Your task to perform on an android device: Open Chrome and go to settings Image 0: 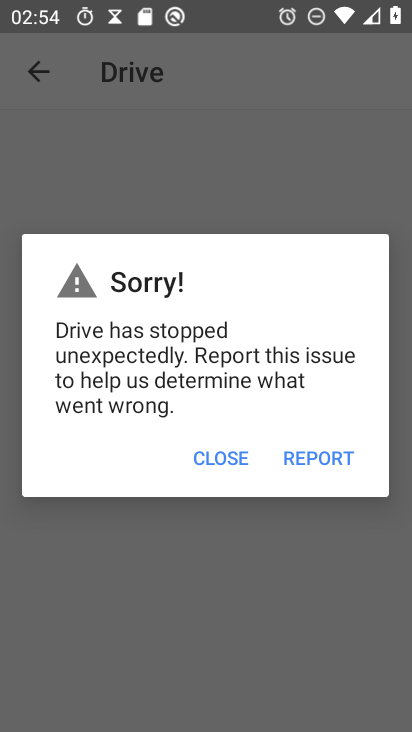
Step 0: press home button
Your task to perform on an android device: Open Chrome and go to settings Image 1: 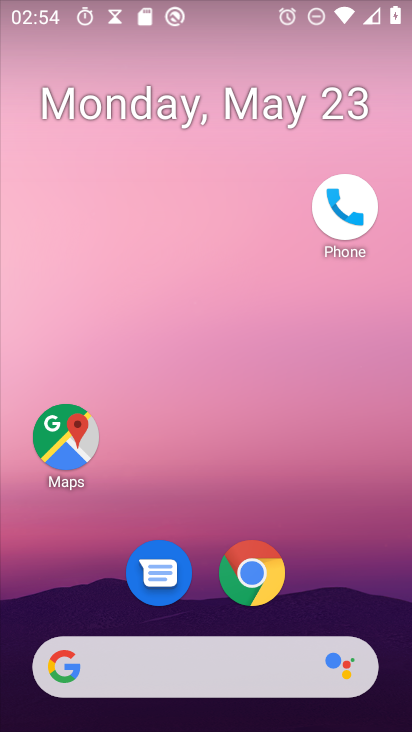
Step 1: click (237, 588)
Your task to perform on an android device: Open Chrome and go to settings Image 2: 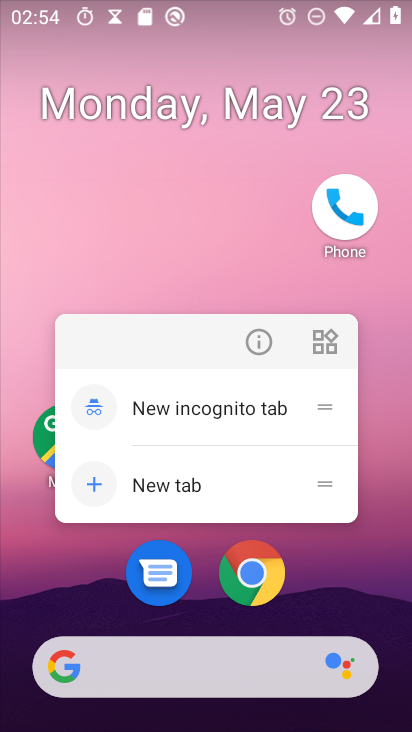
Step 2: click (247, 590)
Your task to perform on an android device: Open Chrome and go to settings Image 3: 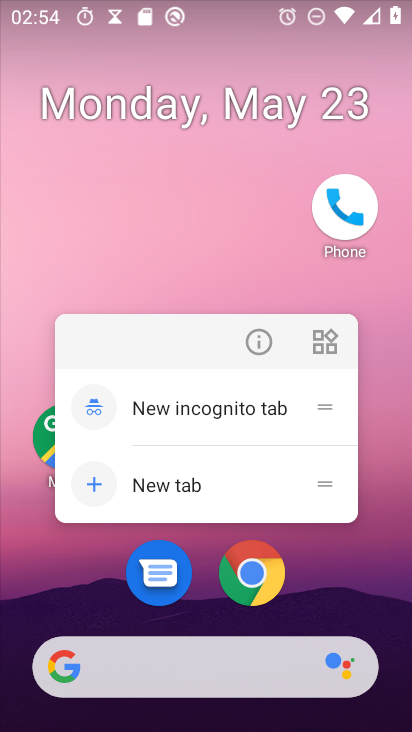
Step 3: click (260, 589)
Your task to perform on an android device: Open Chrome and go to settings Image 4: 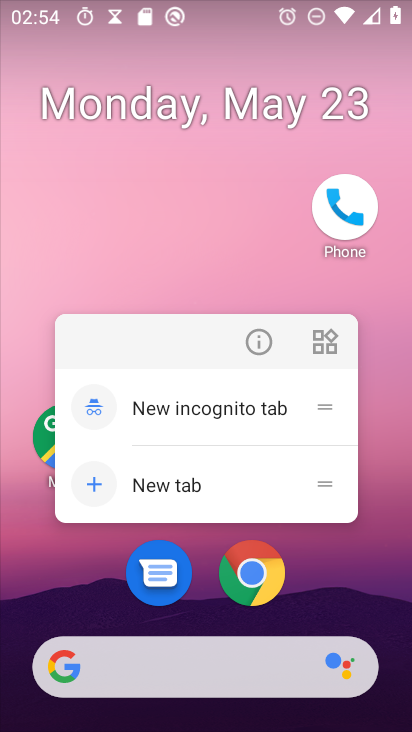
Step 4: click (255, 575)
Your task to perform on an android device: Open Chrome and go to settings Image 5: 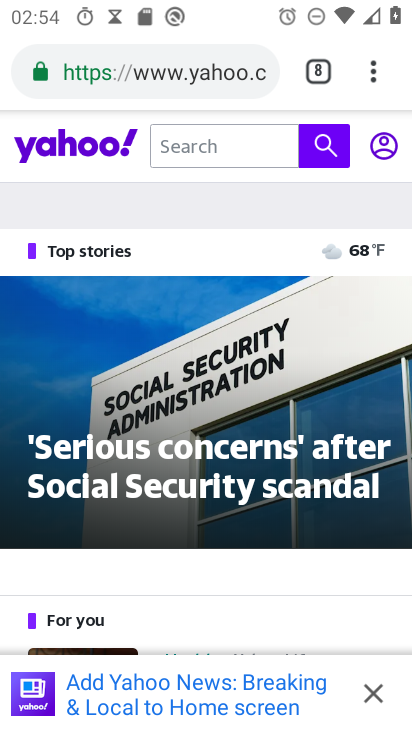
Step 5: drag from (376, 79) to (313, 577)
Your task to perform on an android device: Open Chrome and go to settings Image 6: 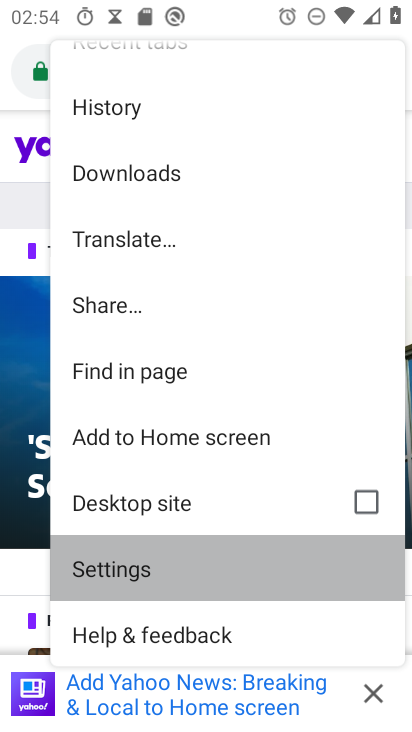
Step 6: click (318, 566)
Your task to perform on an android device: Open Chrome and go to settings Image 7: 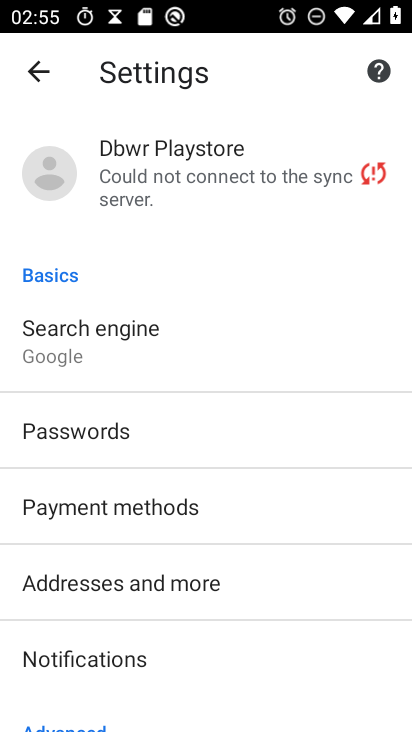
Step 7: task complete